Your task to perform on an android device: Open Google Maps and go to "Timeline" Image 0: 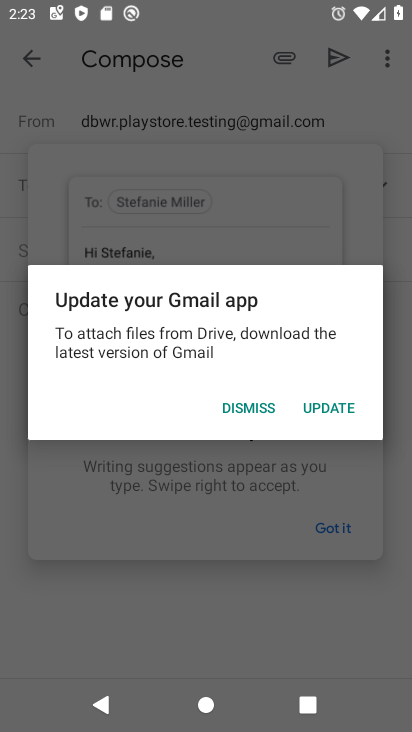
Step 0: drag from (325, 548) to (300, 190)
Your task to perform on an android device: Open Google Maps and go to "Timeline" Image 1: 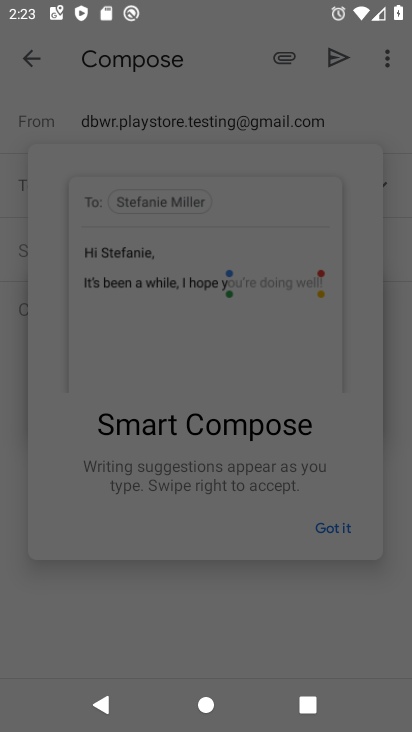
Step 1: press home button
Your task to perform on an android device: Open Google Maps and go to "Timeline" Image 2: 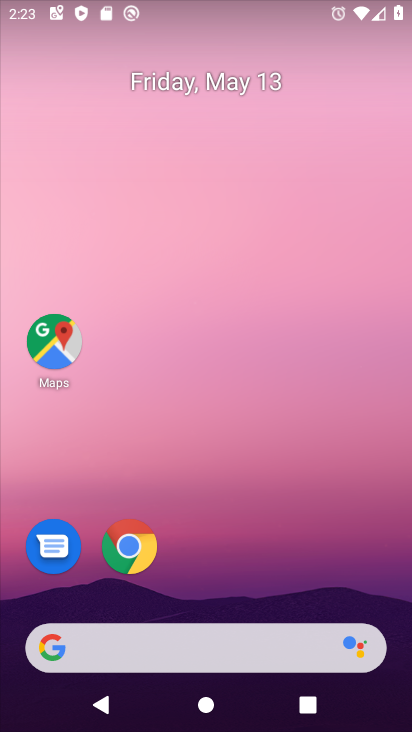
Step 2: click (63, 340)
Your task to perform on an android device: Open Google Maps and go to "Timeline" Image 3: 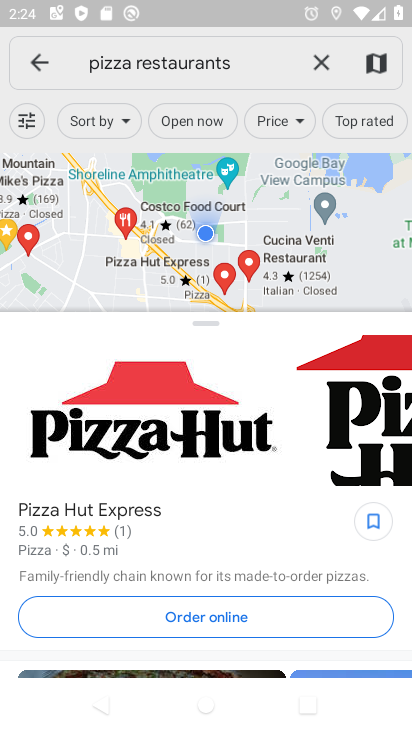
Step 3: click (34, 59)
Your task to perform on an android device: Open Google Maps and go to "Timeline" Image 4: 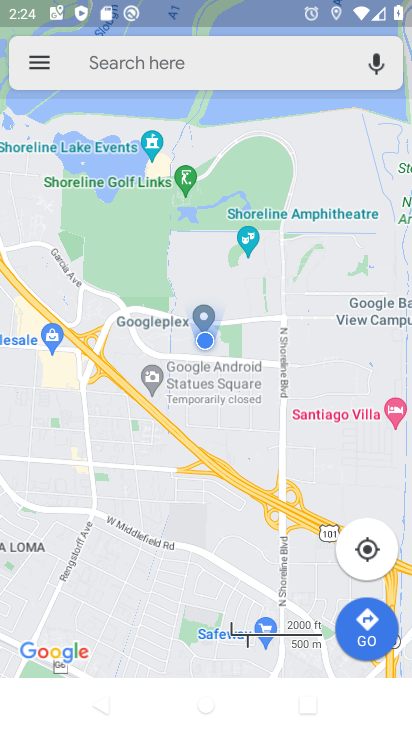
Step 4: click (35, 58)
Your task to perform on an android device: Open Google Maps and go to "Timeline" Image 5: 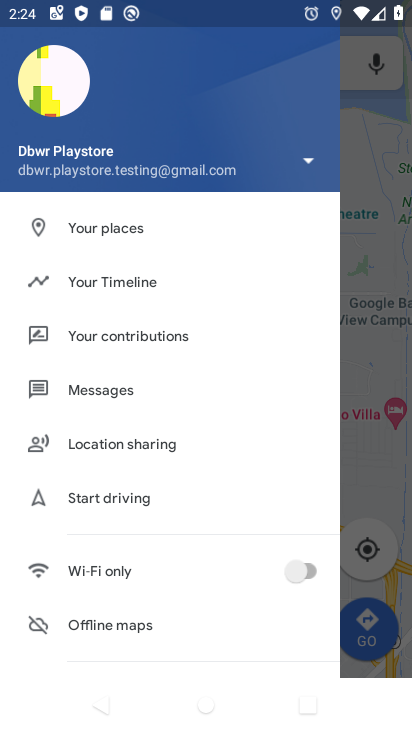
Step 5: click (138, 287)
Your task to perform on an android device: Open Google Maps and go to "Timeline" Image 6: 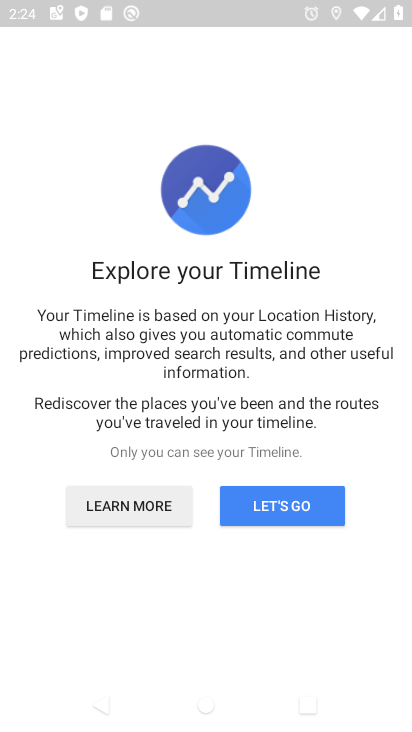
Step 6: click (299, 500)
Your task to perform on an android device: Open Google Maps and go to "Timeline" Image 7: 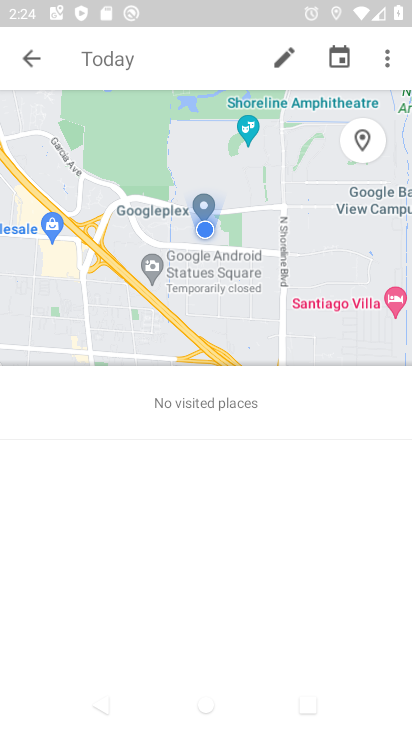
Step 7: task complete